Your task to perform on an android device: turn on bluetooth scan Image 0: 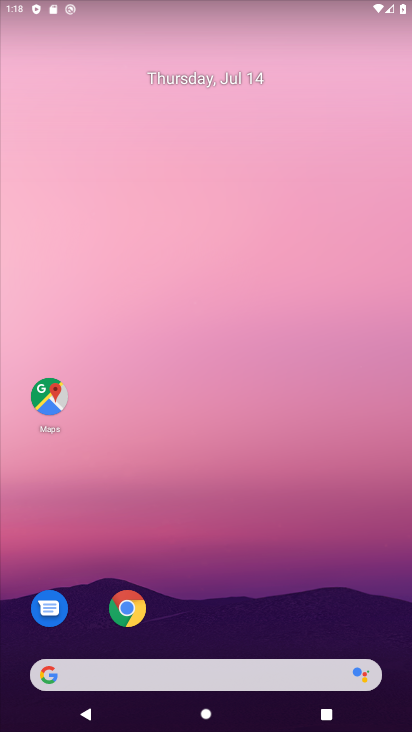
Step 0: drag from (211, 613) to (238, 21)
Your task to perform on an android device: turn on bluetooth scan Image 1: 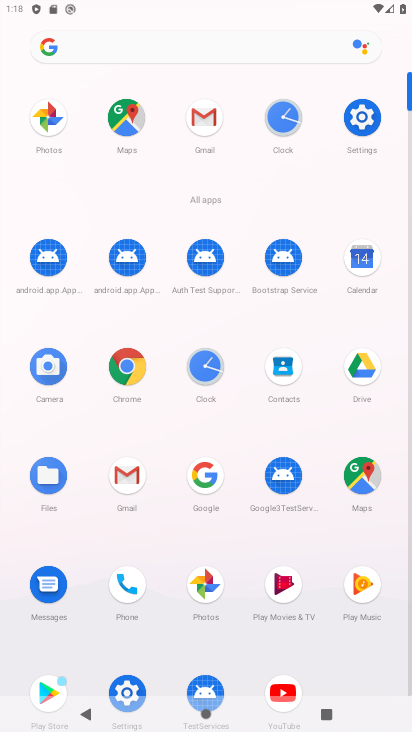
Step 1: click (136, 690)
Your task to perform on an android device: turn on bluetooth scan Image 2: 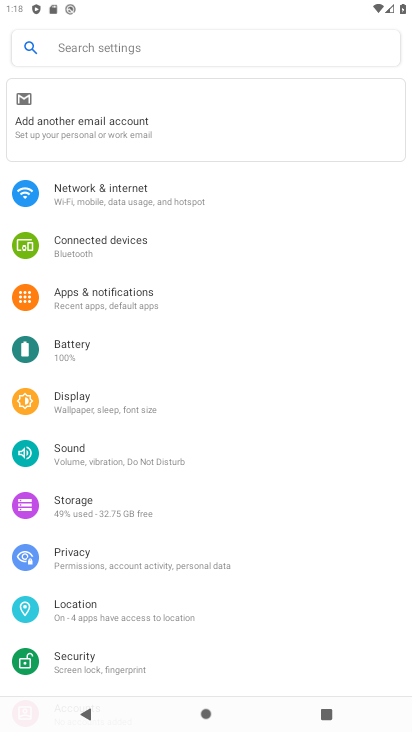
Step 2: click (98, 613)
Your task to perform on an android device: turn on bluetooth scan Image 3: 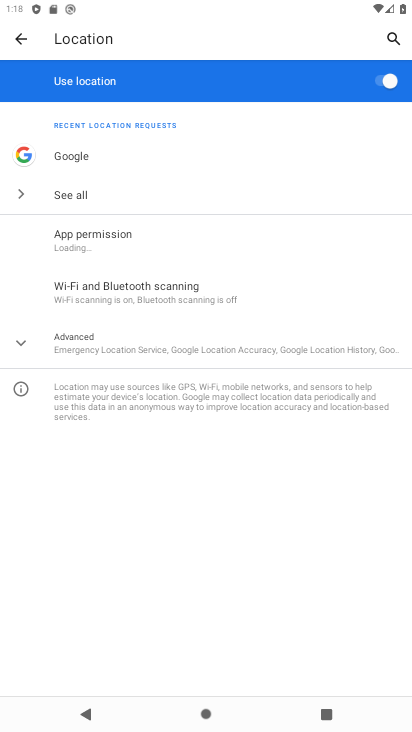
Step 3: click (160, 295)
Your task to perform on an android device: turn on bluetooth scan Image 4: 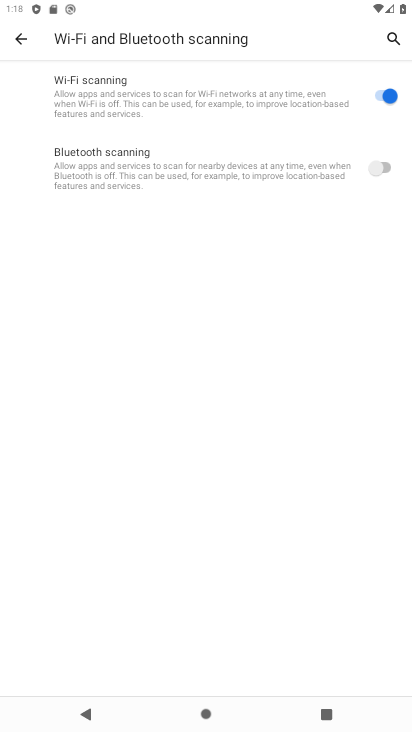
Step 4: click (311, 162)
Your task to perform on an android device: turn on bluetooth scan Image 5: 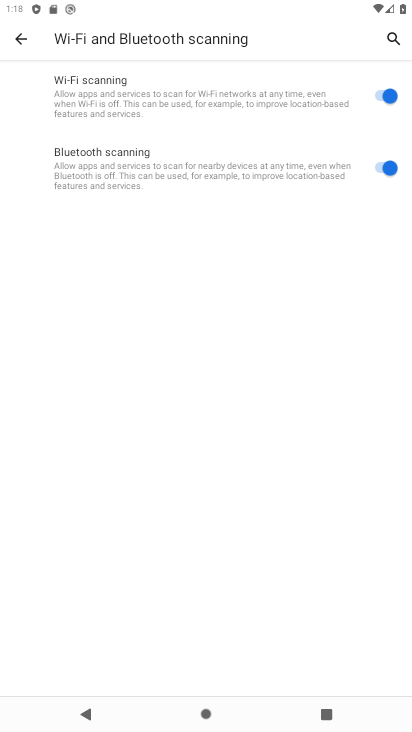
Step 5: task complete